Your task to perform on an android device: Show me recent news Image 0: 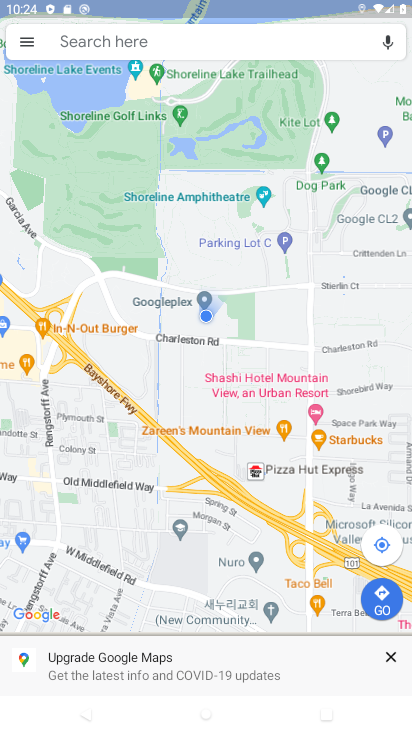
Step 0: press home button
Your task to perform on an android device: Show me recent news Image 1: 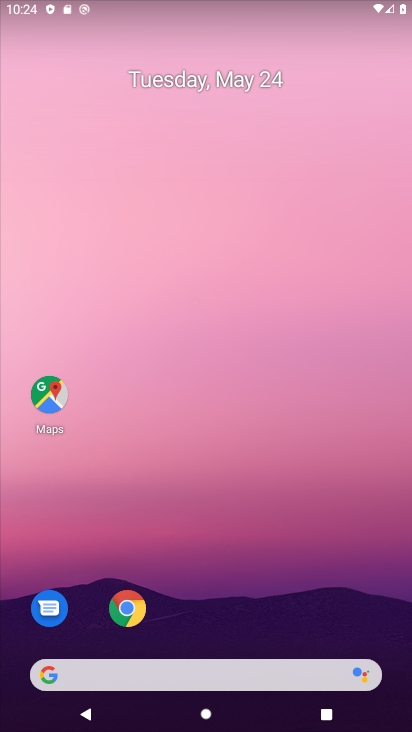
Step 1: task complete